Your task to perform on an android device: Go to Android settings Image 0: 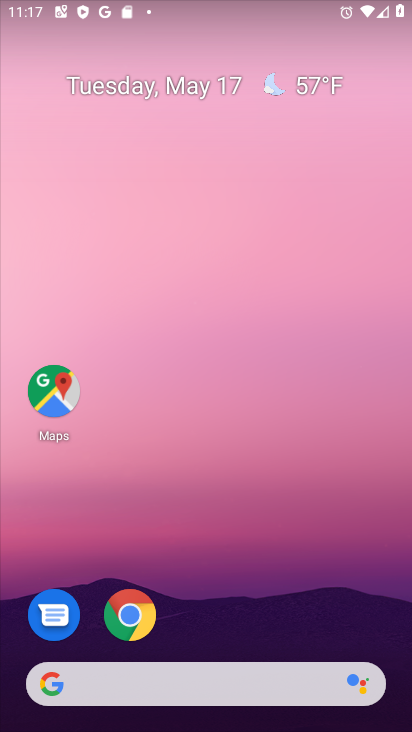
Step 0: drag from (299, 565) to (292, 193)
Your task to perform on an android device: Go to Android settings Image 1: 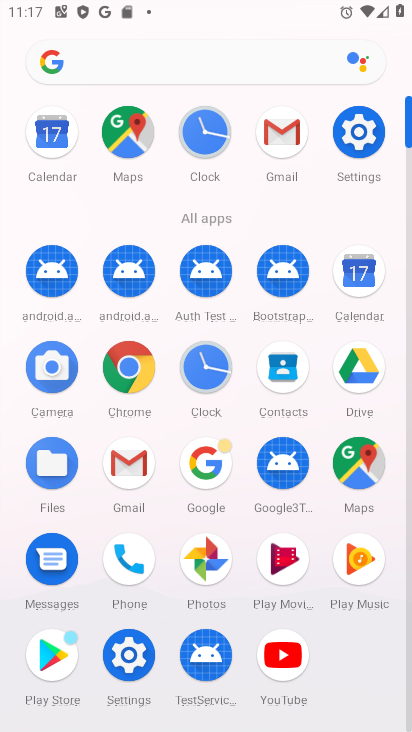
Step 1: click (373, 135)
Your task to perform on an android device: Go to Android settings Image 2: 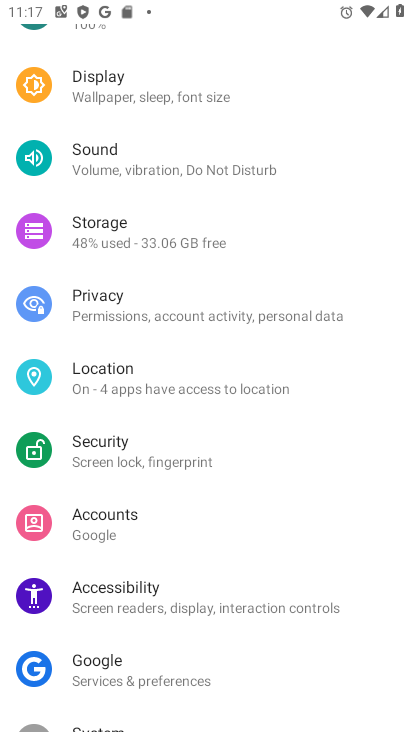
Step 2: task complete